Your task to perform on an android device: turn smart compose on in the gmail app Image 0: 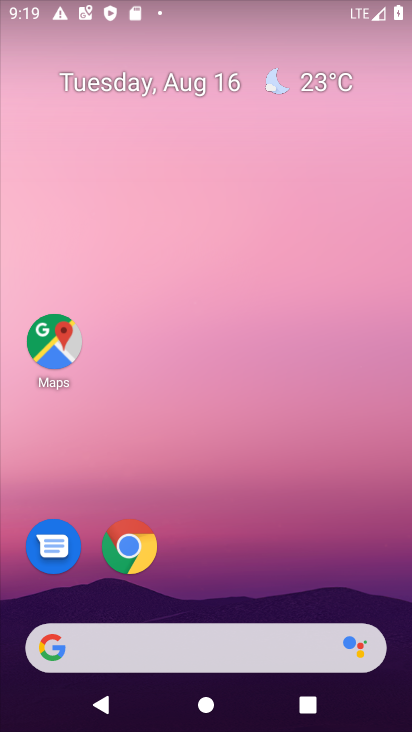
Step 0: drag from (214, 520) to (230, 1)
Your task to perform on an android device: turn smart compose on in the gmail app Image 1: 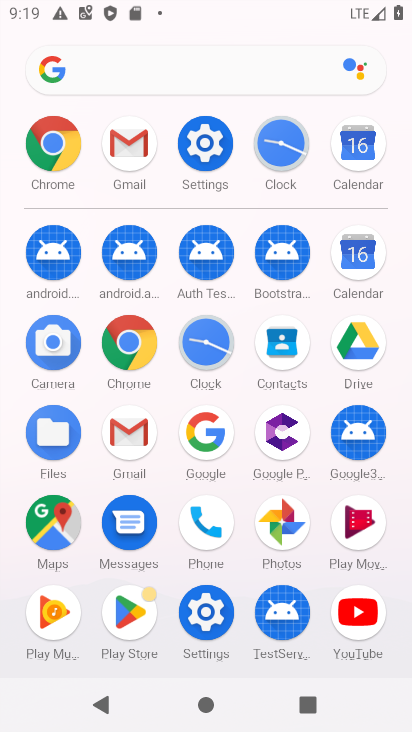
Step 1: click (132, 137)
Your task to perform on an android device: turn smart compose on in the gmail app Image 2: 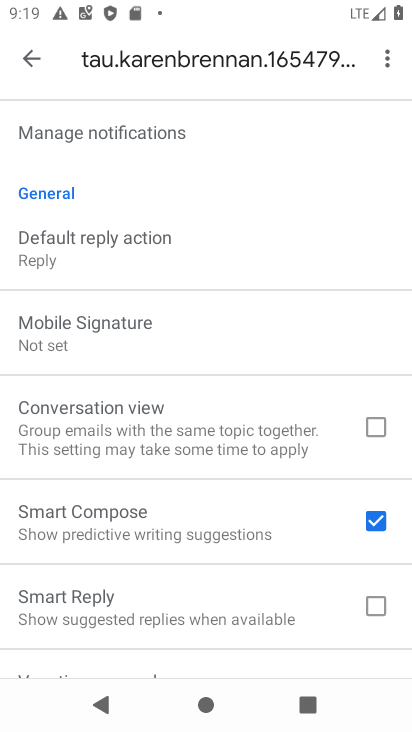
Step 2: task complete